Your task to perform on an android device: turn off location Image 0: 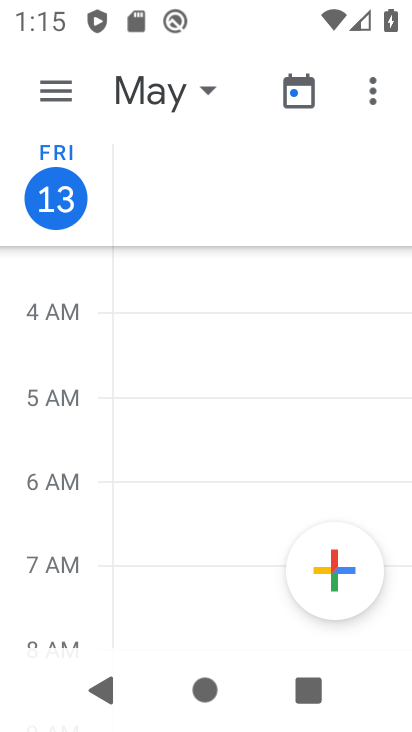
Step 0: press home button
Your task to perform on an android device: turn off location Image 1: 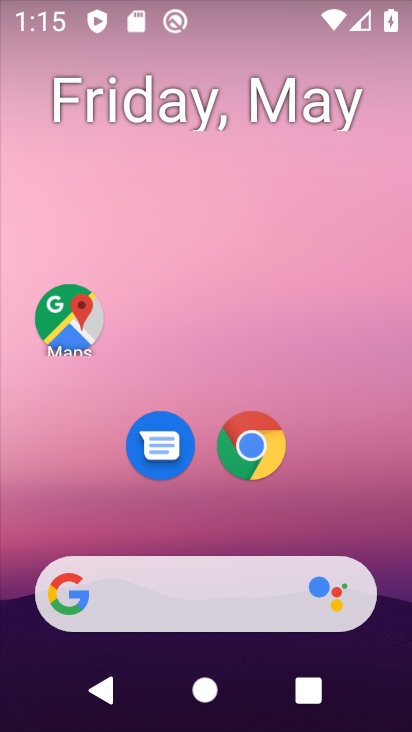
Step 1: drag from (387, 614) to (303, 100)
Your task to perform on an android device: turn off location Image 2: 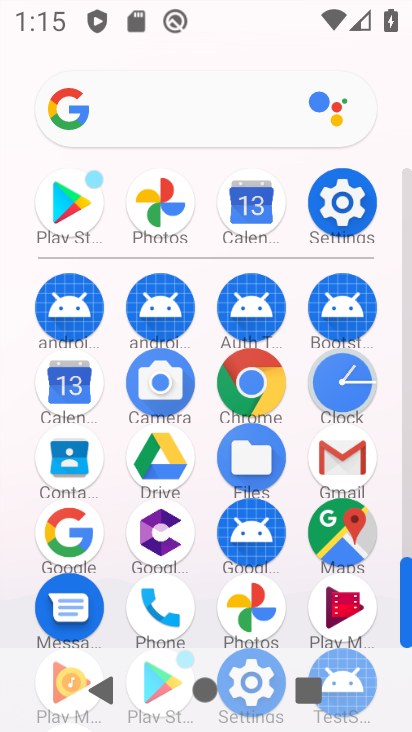
Step 2: click (404, 537)
Your task to perform on an android device: turn off location Image 3: 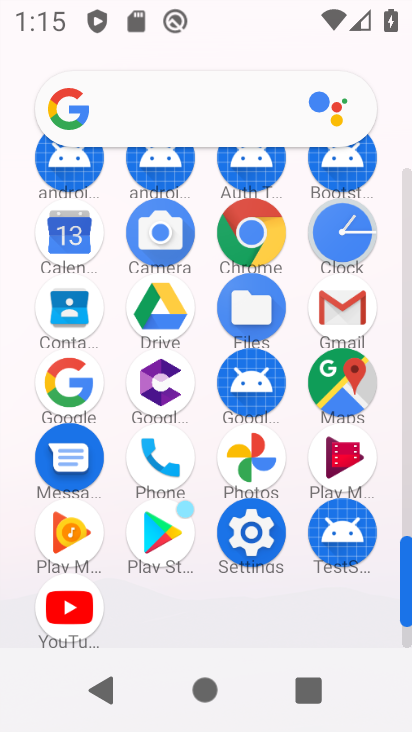
Step 3: click (404, 548)
Your task to perform on an android device: turn off location Image 4: 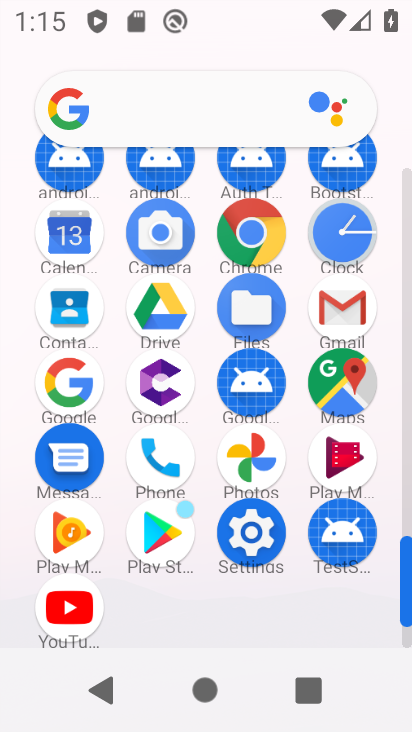
Step 4: click (254, 533)
Your task to perform on an android device: turn off location Image 5: 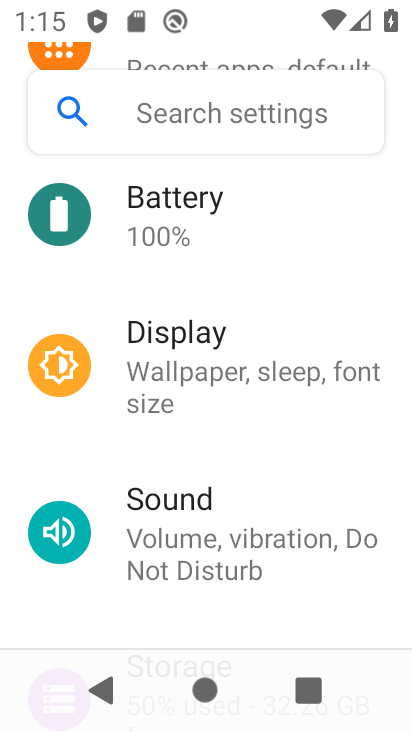
Step 5: drag from (307, 567) to (308, 197)
Your task to perform on an android device: turn off location Image 6: 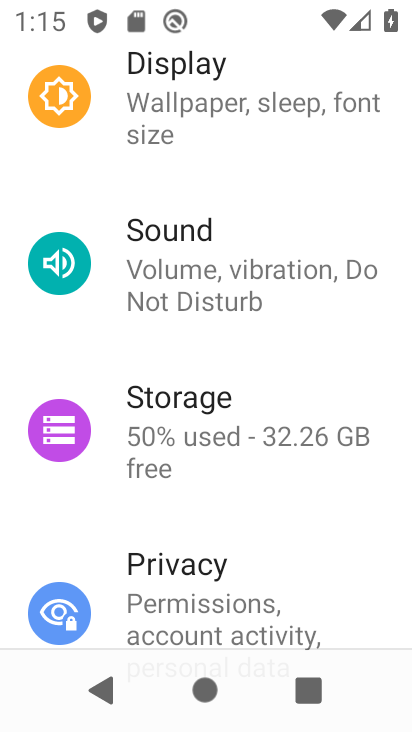
Step 6: drag from (339, 541) to (341, 155)
Your task to perform on an android device: turn off location Image 7: 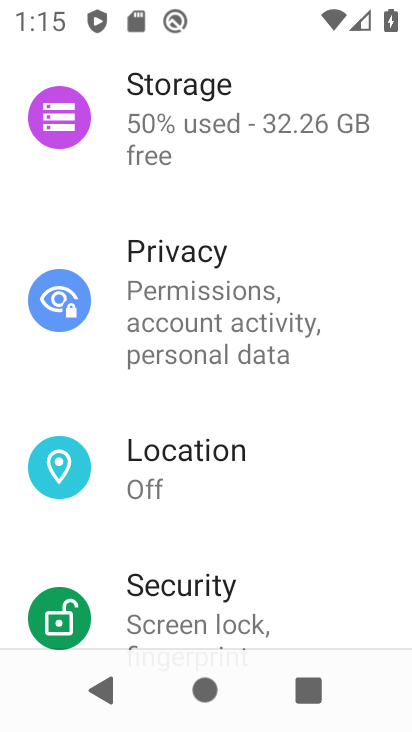
Step 7: click (151, 449)
Your task to perform on an android device: turn off location Image 8: 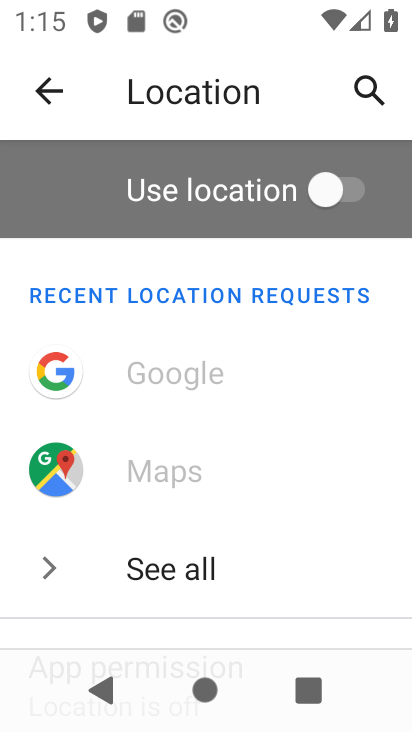
Step 8: task complete